Your task to perform on an android device: move a message to another label in the gmail app Image 0: 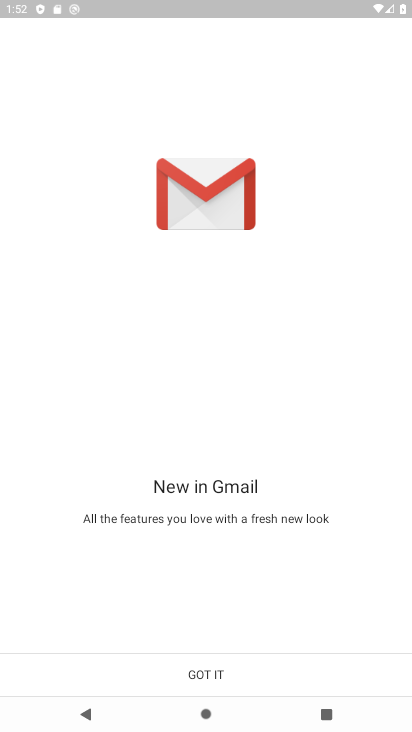
Step 0: press home button
Your task to perform on an android device: move a message to another label in the gmail app Image 1: 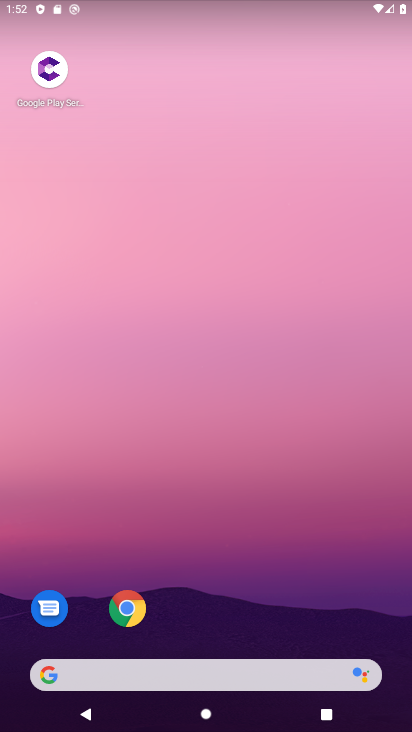
Step 1: drag from (295, 533) to (266, 84)
Your task to perform on an android device: move a message to another label in the gmail app Image 2: 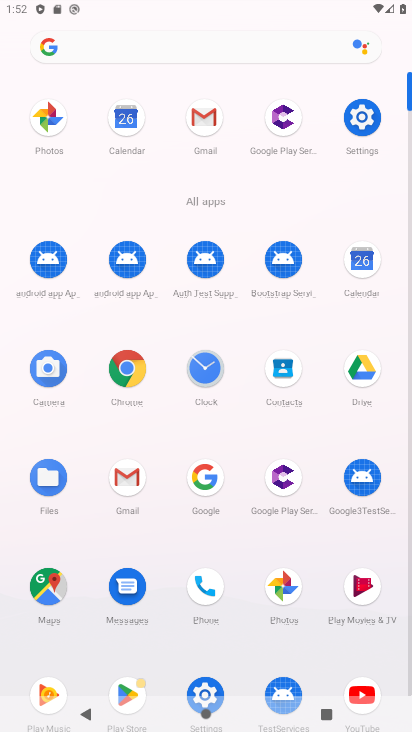
Step 2: click (121, 483)
Your task to perform on an android device: move a message to another label in the gmail app Image 3: 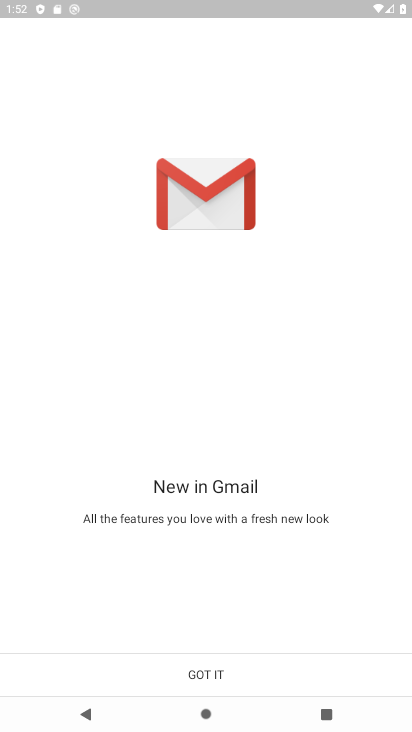
Step 3: click (205, 679)
Your task to perform on an android device: move a message to another label in the gmail app Image 4: 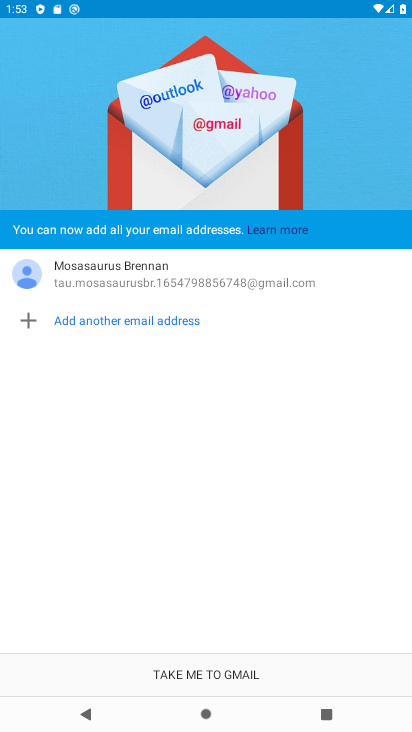
Step 4: click (210, 667)
Your task to perform on an android device: move a message to another label in the gmail app Image 5: 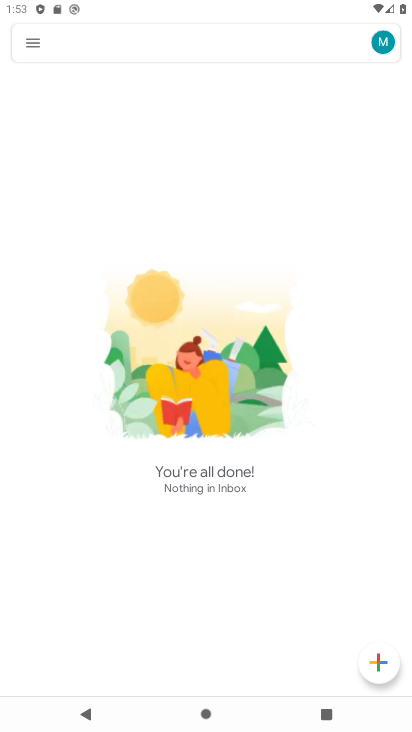
Step 5: task complete